Your task to perform on an android device: create a new album in the google photos Image 0: 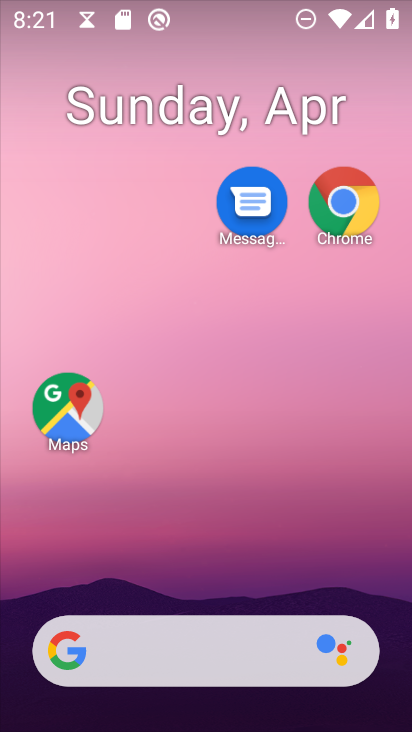
Step 0: press home button
Your task to perform on an android device: create a new album in the google photos Image 1: 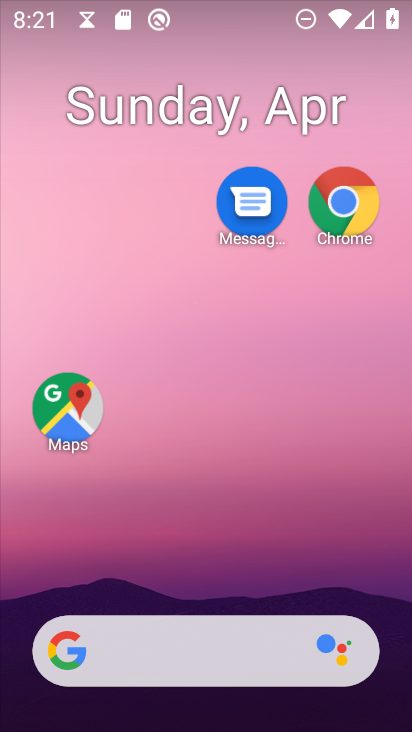
Step 1: drag from (209, 646) to (368, 14)
Your task to perform on an android device: create a new album in the google photos Image 2: 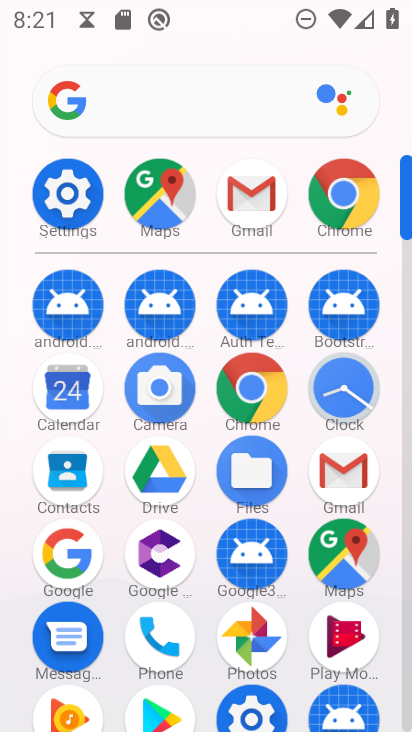
Step 2: click (254, 637)
Your task to perform on an android device: create a new album in the google photos Image 3: 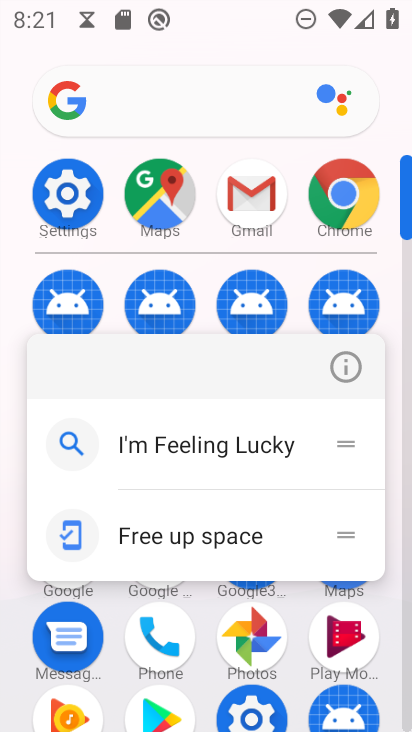
Step 3: click (254, 640)
Your task to perform on an android device: create a new album in the google photos Image 4: 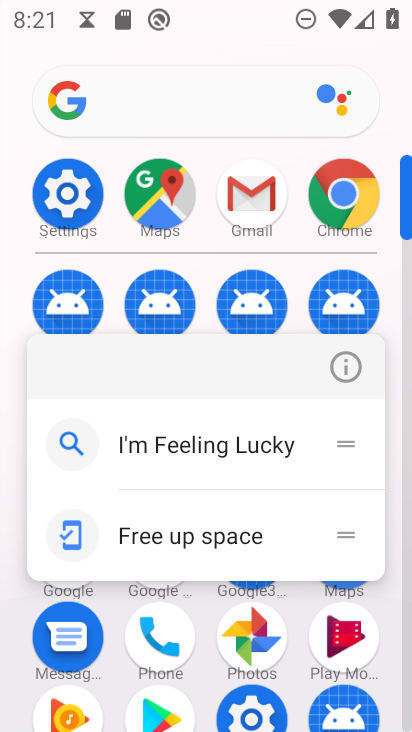
Step 4: click (254, 639)
Your task to perform on an android device: create a new album in the google photos Image 5: 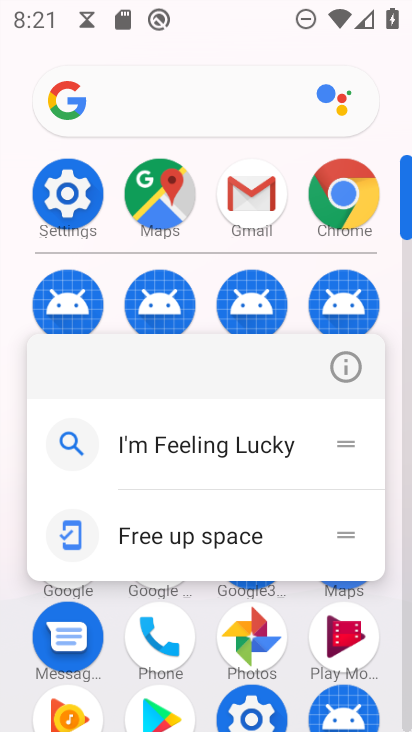
Step 5: click (251, 641)
Your task to perform on an android device: create a new album in the google photos Image 6: 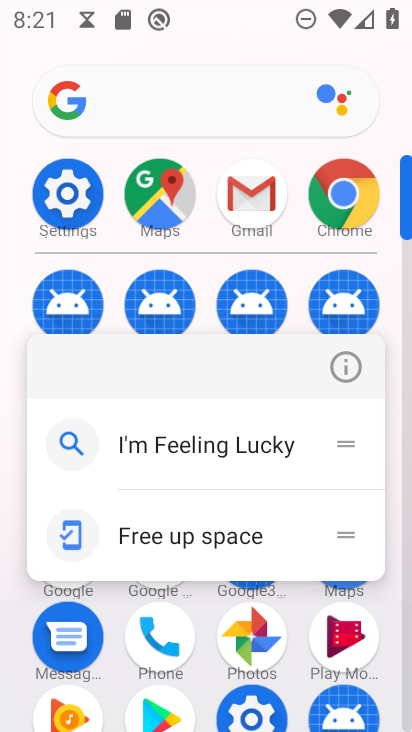
Step 6: click (251, 642)
Your task to perform on an android device: create a new album in the google photos Image 7: 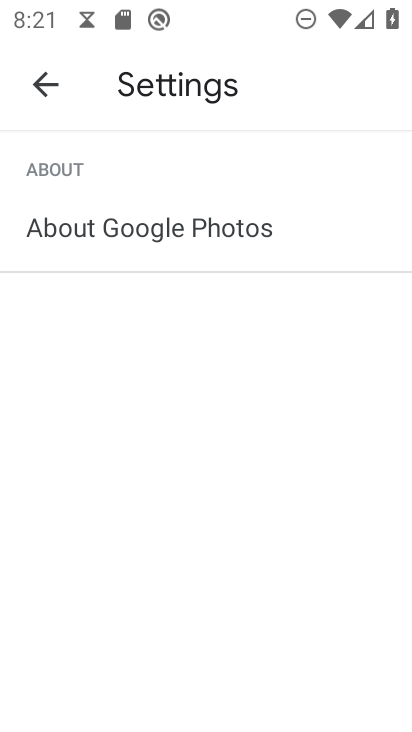
Step 7: click (49, 84)
Your task to perform on an android device: create a new album in the google photos Image 8: 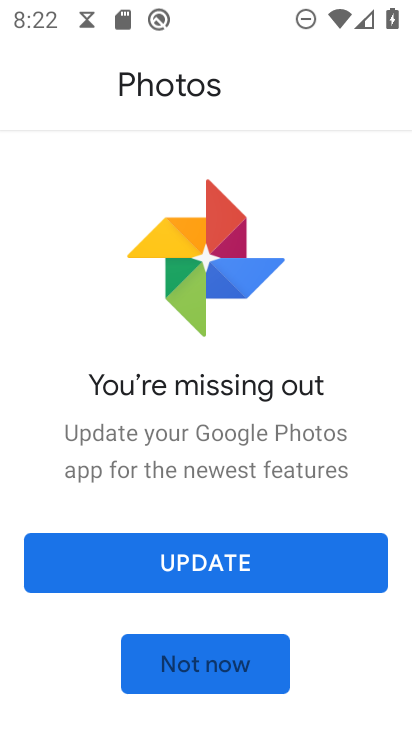
Step 8: click (215, 666)
Your task to perform on an android device: create a new album in the google photos Image 9: 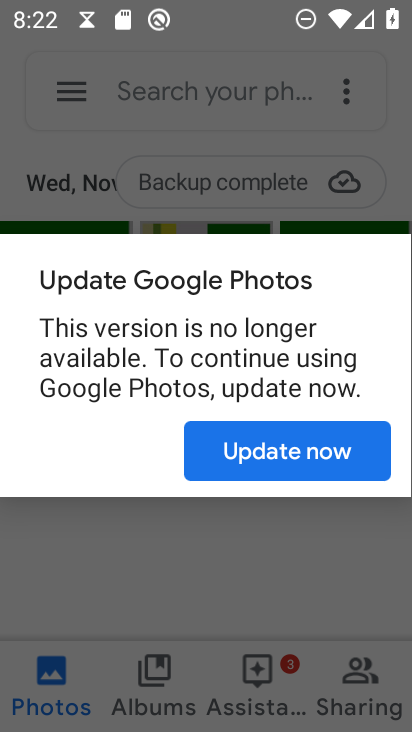
Step 9: drag from (175, 457) to (284, 158)
Your task to perform on an android device: create a new album in the google photos Image 10: 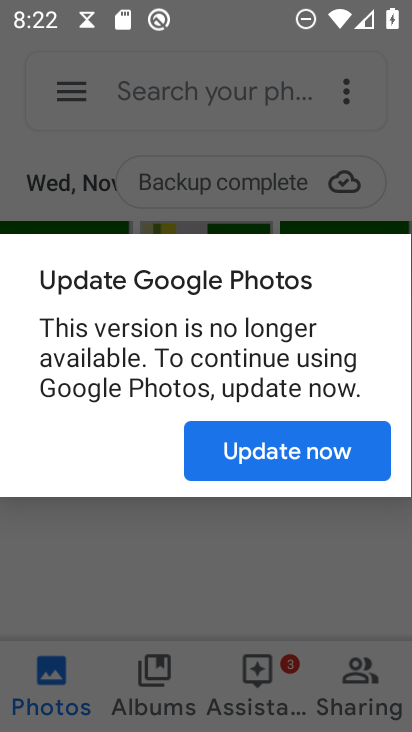
Step 10: click (246, 447)
Your task to perform on an android device: create a new album in the google photos Image 11: 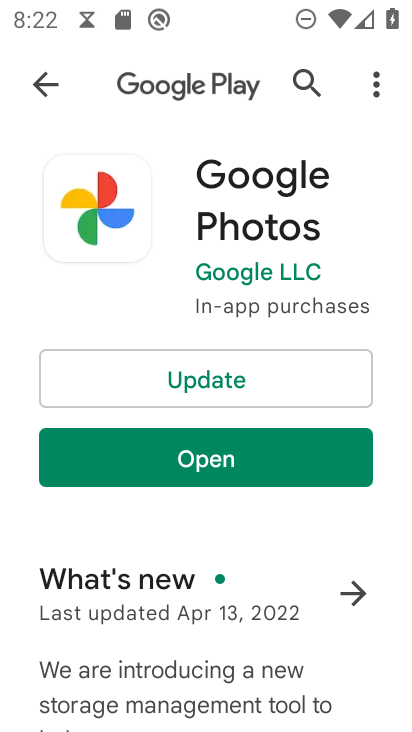
Step 11: click (204, 467)
Your task to perform on an android device: create a new album in the google photos Image 12: 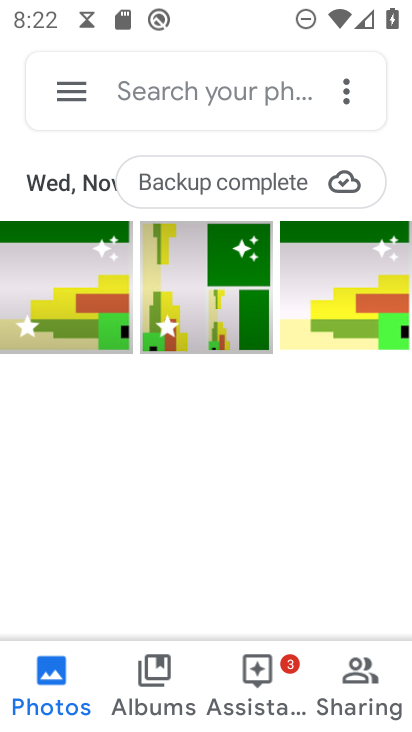
Step 12: click (153, 674)
Your task to perform on an android device: create a new album in the google photos Image 13: 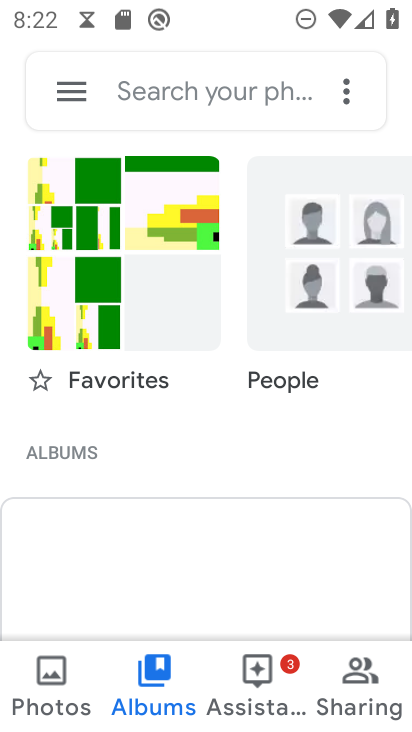
Step 13: drag from (183, 514) to (286, 228)
Your task to perform on an android device: create a new album in the google photos Image 14: 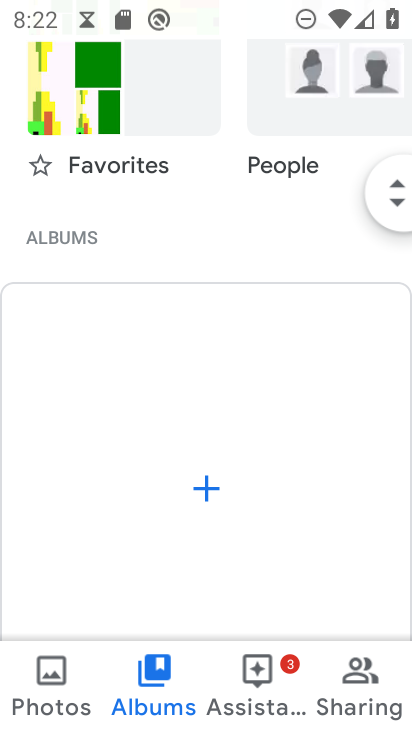
Step 14: click (203, 489)
Your task to perform on an android device: create a new album in the google photos Image 15: 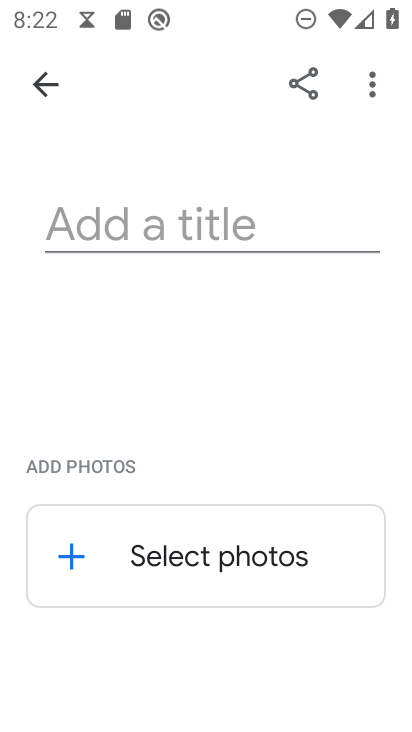
Step 15: click (172, 558)
Your task to perform on an android device: create a new album in the google photos Image 16: 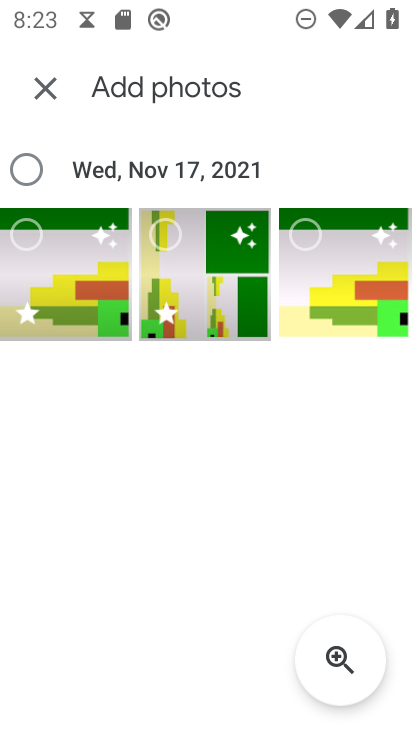
Step 16: click (35, 243)
Your task to perform on an android device: create a new album in the google photos Image 17: 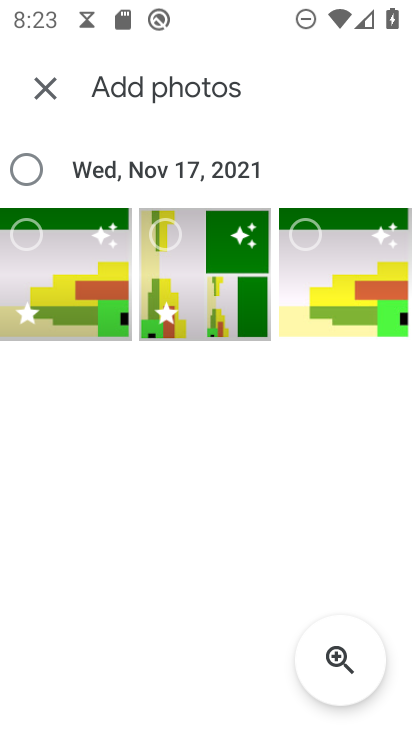
Step 17: click (180, 263)
Your task to perform on an android device: create a new album in the google photos Image 18: 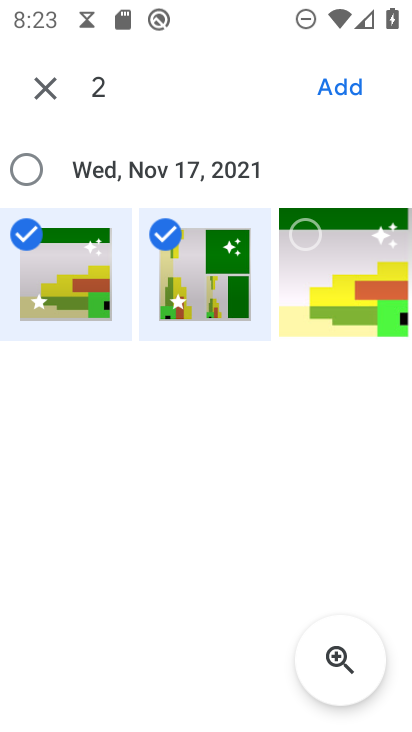
Step 18: click (360, 90)
Your task to perform on an android device: create a new album in the google photos Image 19: 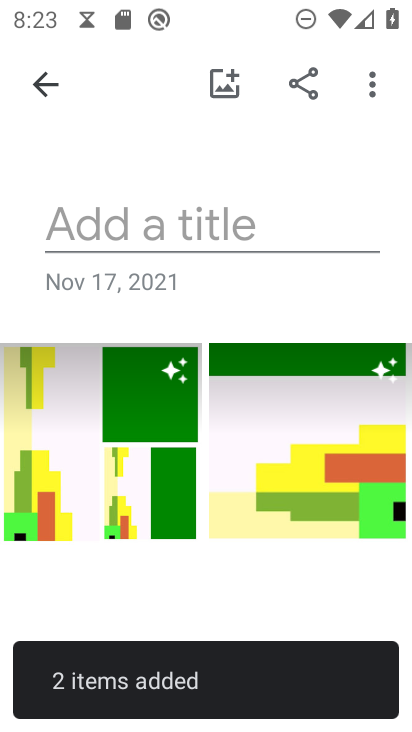
Step 19: task complete